Your task to perform on an android device: What's the news about the US president? Image 0: 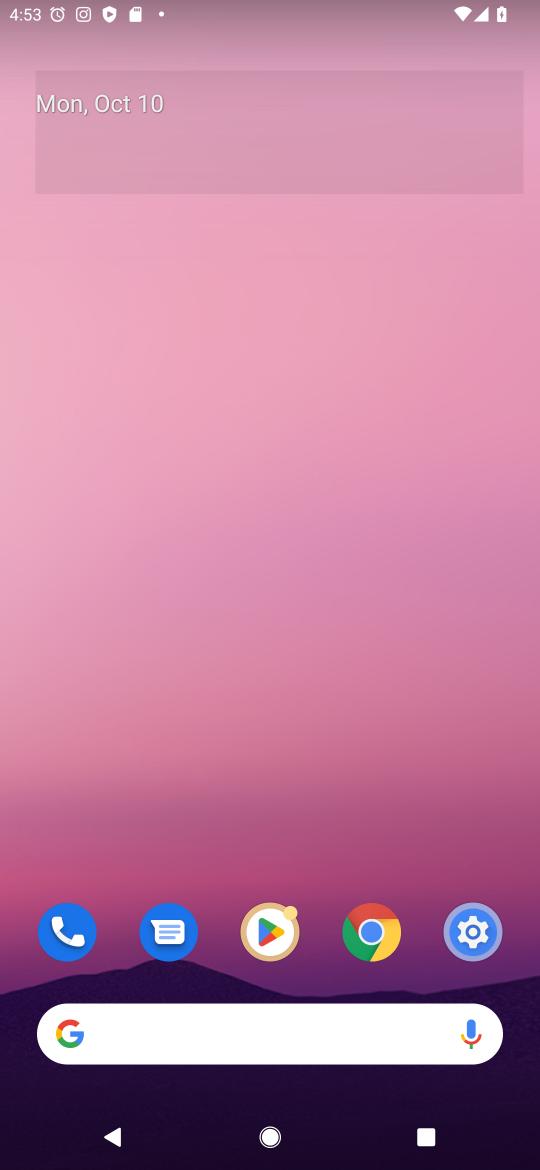
Step 0: click (348, 1026)
Your task to perform on an android device: What's the news about the US president? Image 1: 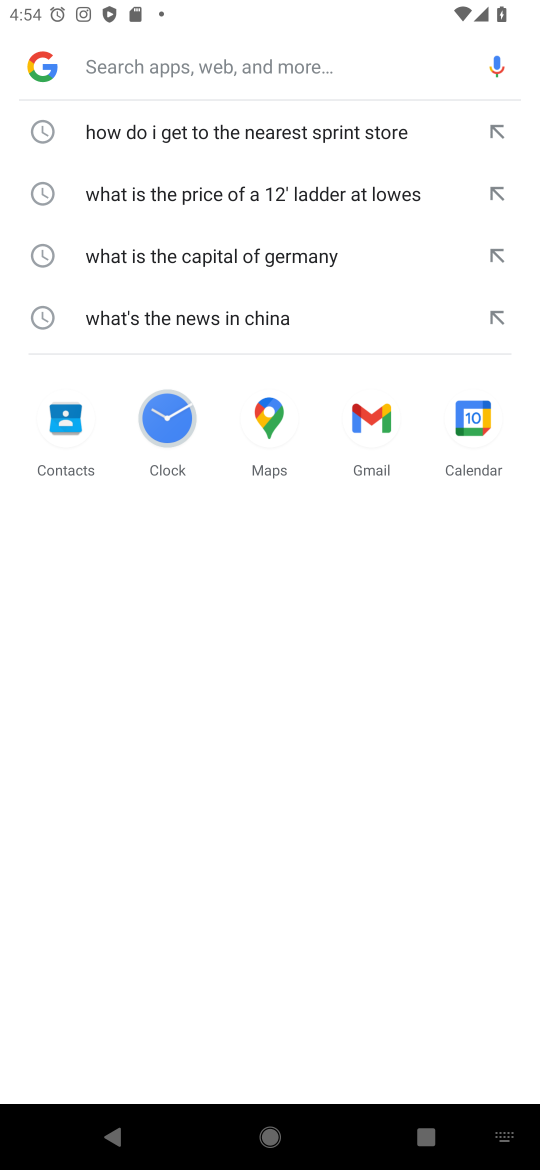
Step 1: press enter
Your task to perform on an android device: What's the news about the US president? Image 2: 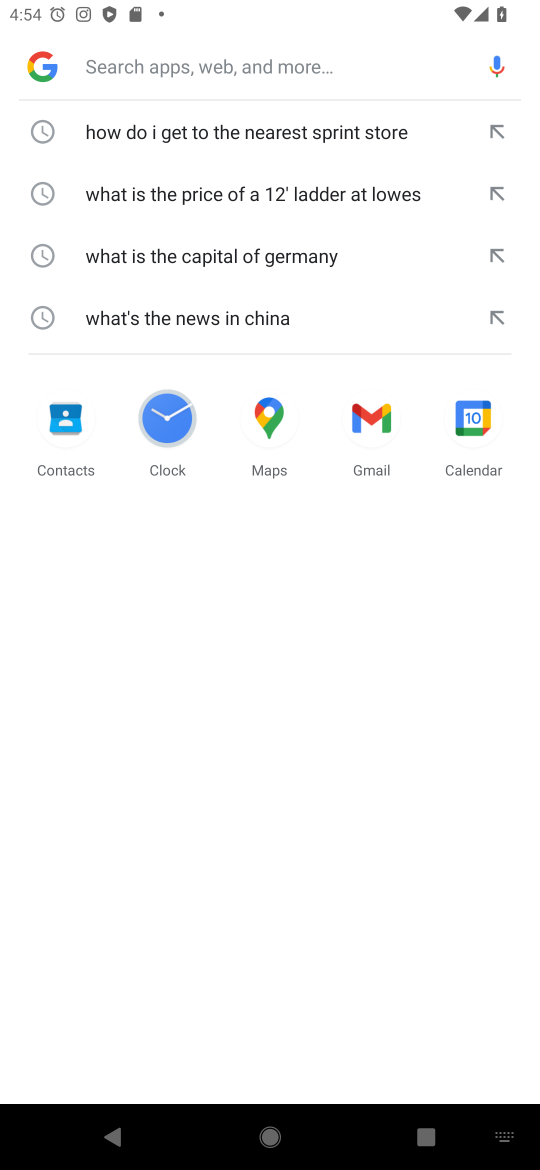
Step 2: type "What's the news about the US president?"
Your task to perform on an android device: What's the news about the US president? Image 3: 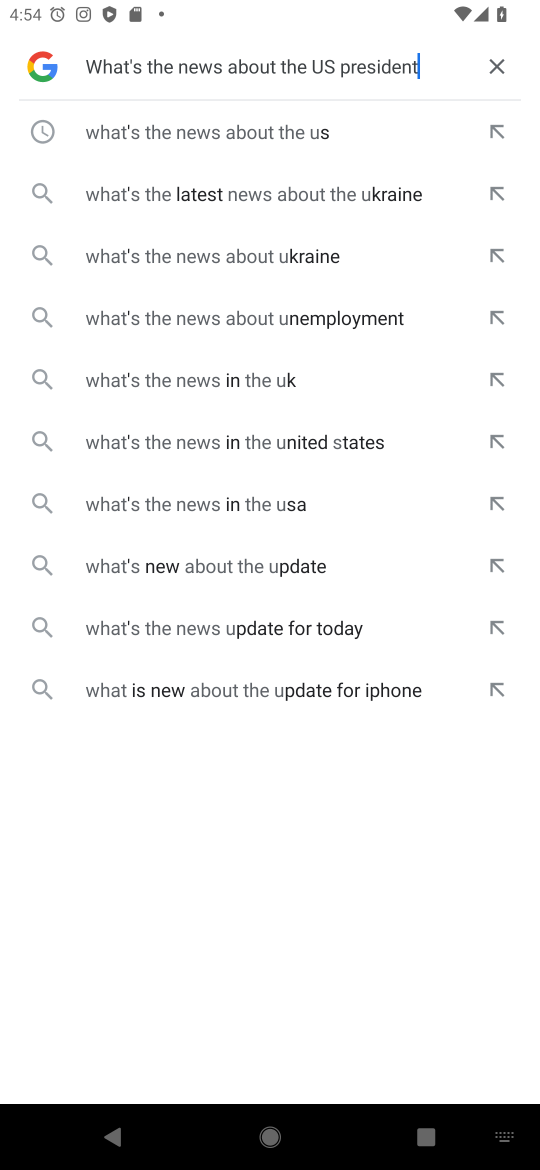
Step 3: press enter
Your task to perform on an android device: What's the news about the US president? Image 4: 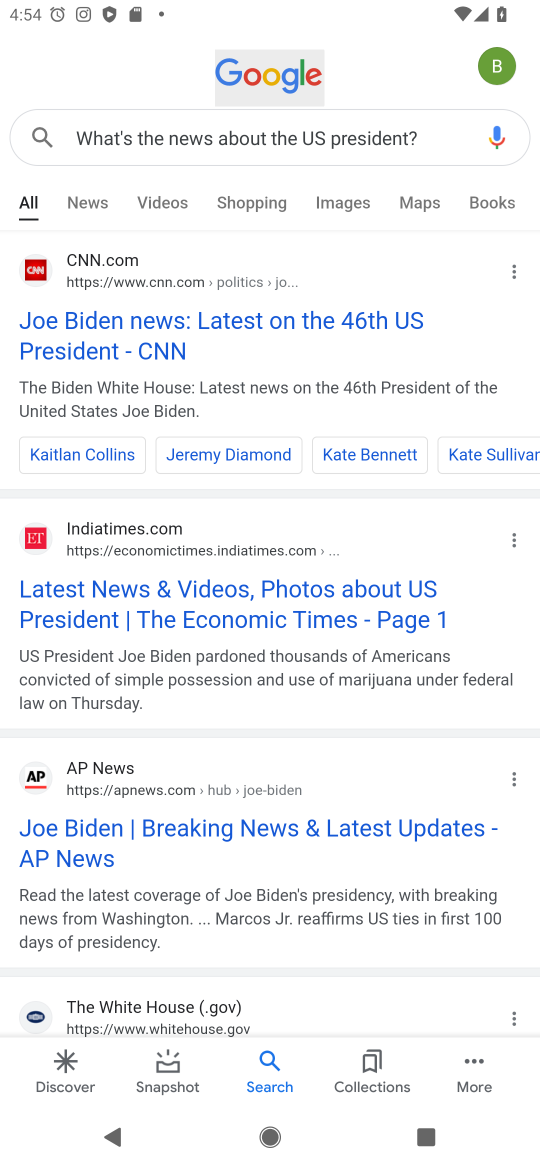
Step 4: click (230, 333)
Your task to perform on an android device: What's the news about the US president? Image 5: 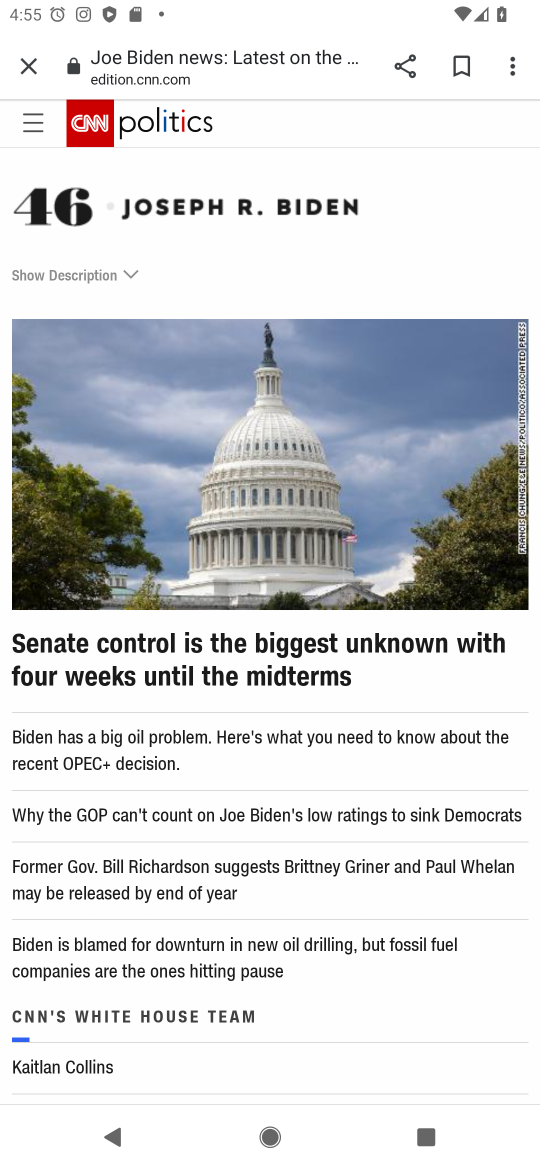
Step 5: task complete